Your task to perform on an android device: Open Chrome and go to settings Image 0: 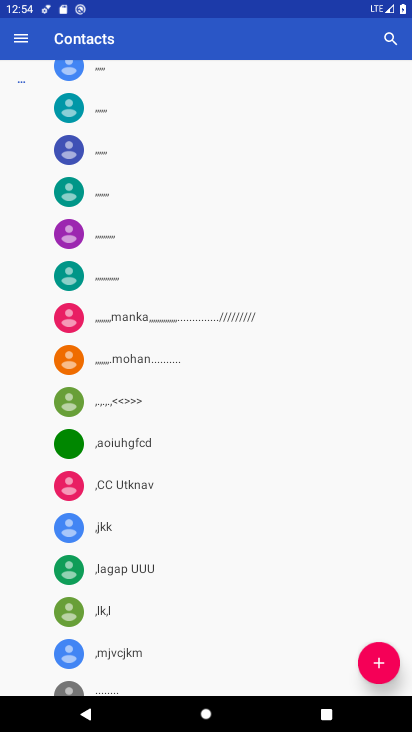
Step 0: press home button
Your task to perform on an android device: Open Chrome and go to settings Image 1: 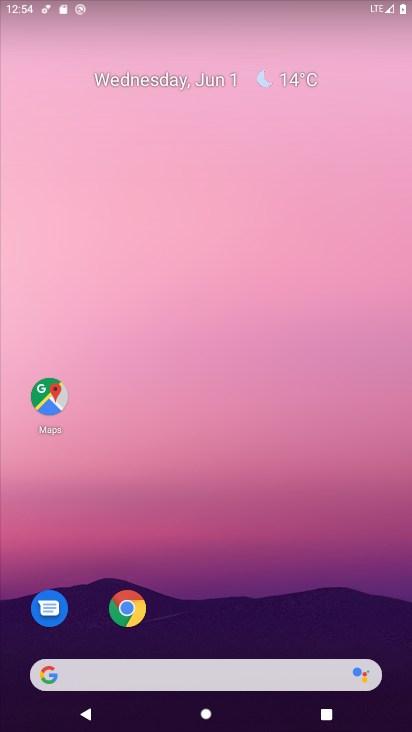
Step 1: click (135, 609)
Your task to perform on an android device: Open Chrome and go to settings Image 2: 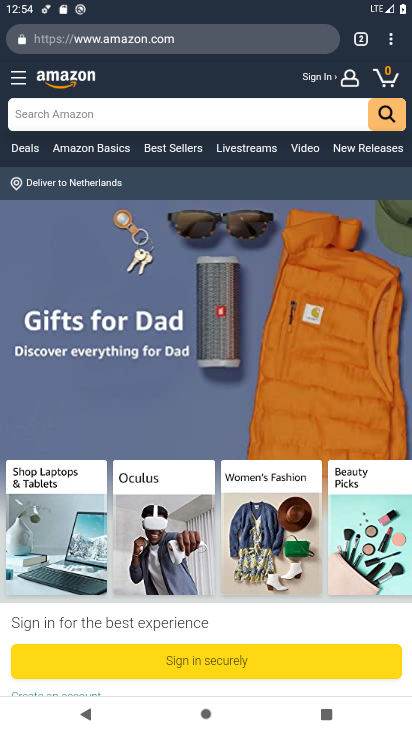
Step 2: click (388, 39)
Your task to perform on an android device: Open Chrome and go to settings Image 3: 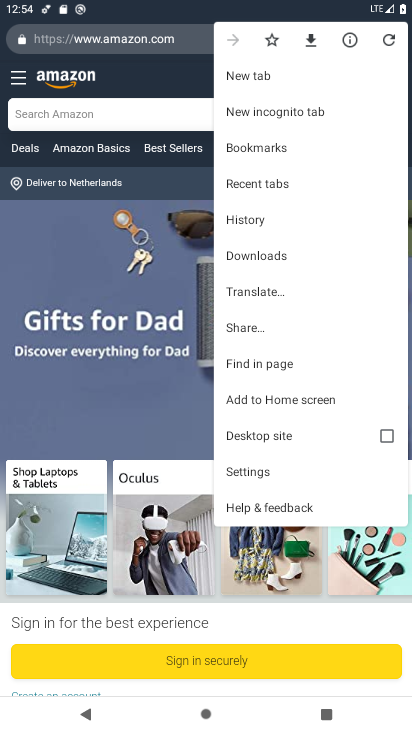
Step 3: click (263, 466)
Your task to perform on an android device: Open Chrome and go to settings Image 4: 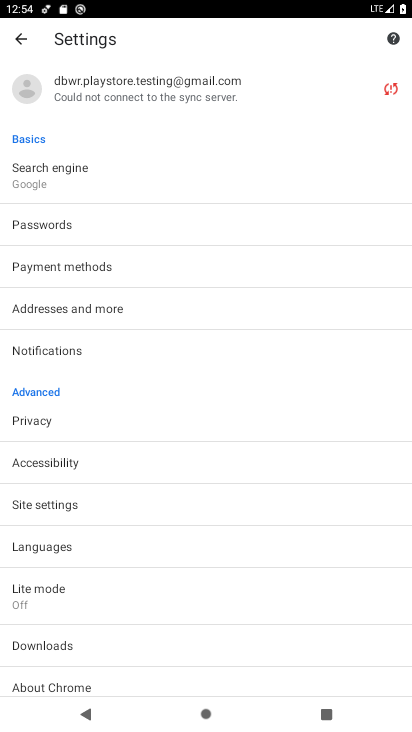
Step 4: task complete